Your task to perform on an android device: find photos in the google photos app Image 0: 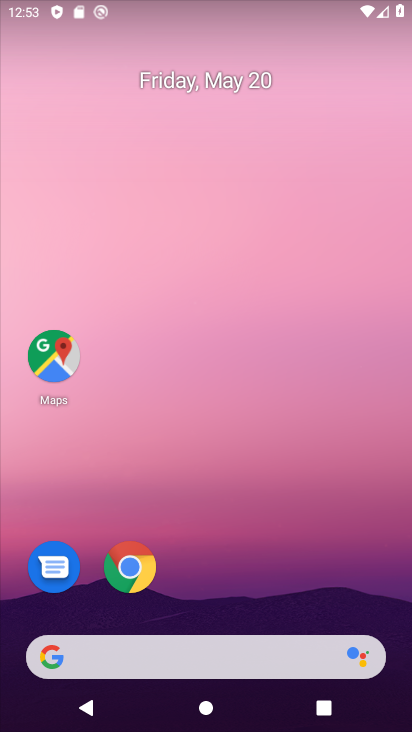
Step 0: drag from (234, 616) to (201, 235)
Your task to perform on an android device: find photos in the google photos app Image 1: 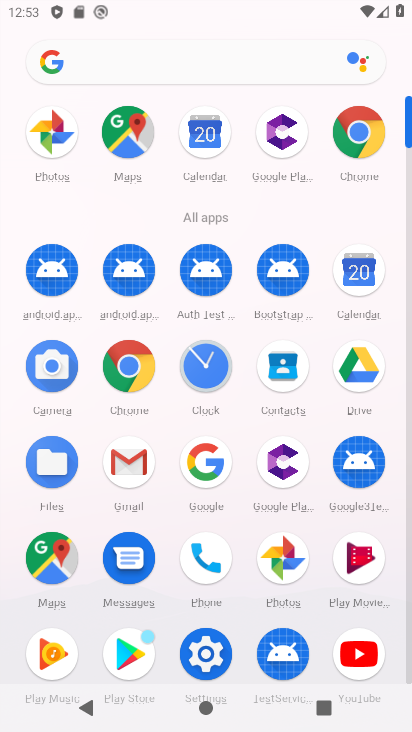
Step 1: click (62, 118)
Your task to perform on an android device: find photos in the google photos app Image 2: 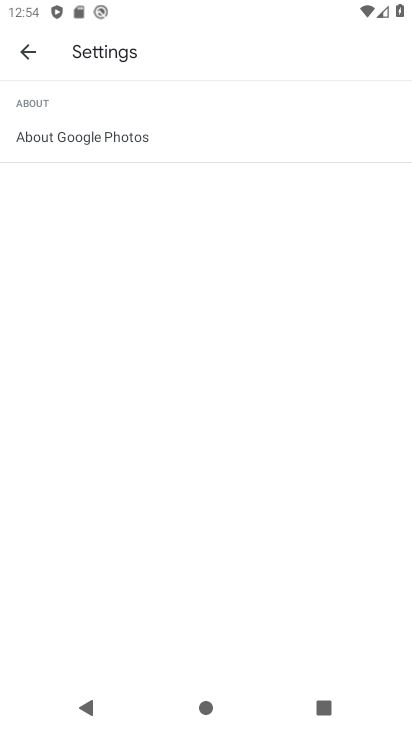
Step 2: click (15, 41)
Your task to perform on an android device: find photos in the google photos app Image 3: 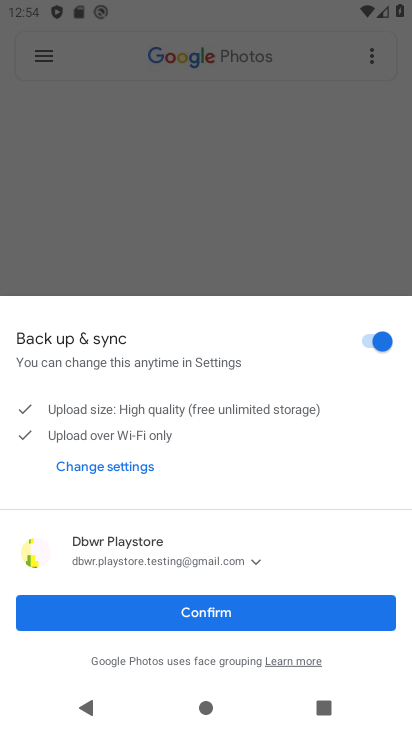
Step 3: click (274, 620)
Your task to perform on an android device: find photos in the google photos app Image 4: 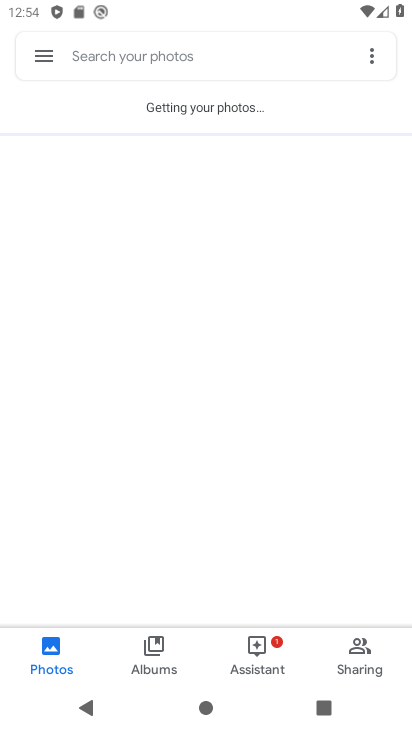
Step 4: task complete